Your task to perform on an android device: What's the weather like in Rio de Janeiro? Image 0: 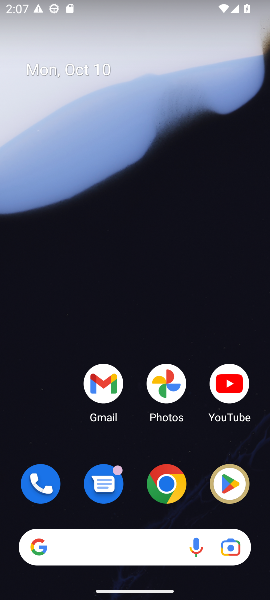
Step 0: click (169, 496)
Your task to perform on an android device: What's the weather like in Rio de Janeiro? Image 1: 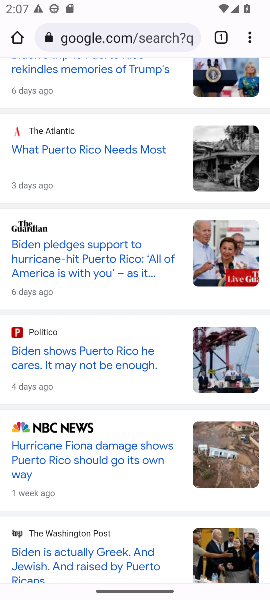
Step 1: drag from (90, 102) to (105, 293)
Your task to perform on an android device: What's the weather like in Rio de Janeiro? Image 2: 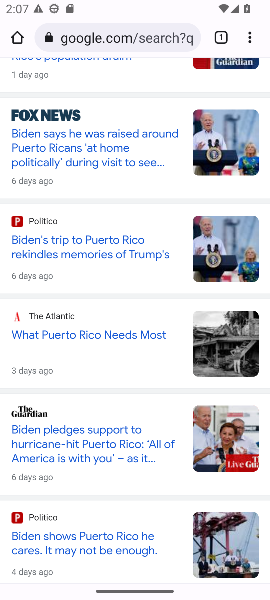
Step 2: click (74, 42)
Your task to perform on an android device: What's the weather like in Rio de Janeiro? Image 3: 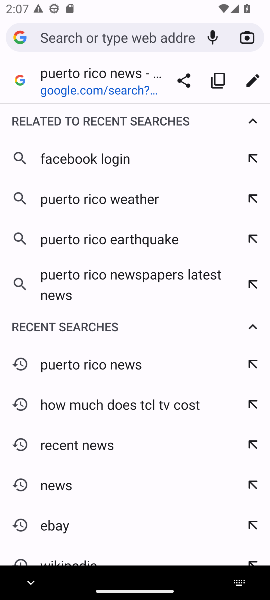
Step 3: type "rio de janeiro weather"
Your task to perform on an android device: What's the weather like in Rio de Janeiro? Image 4: 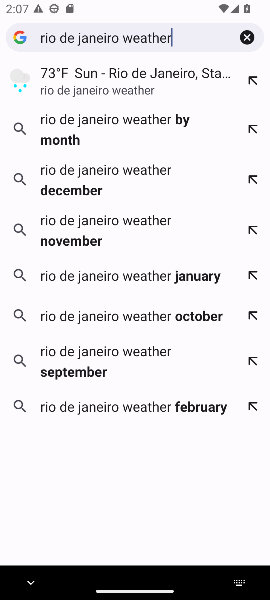
Step 4: click (141, 81)
Your task to perform on an android device: What's the weather like in Rio de Janeiro? Image 5: 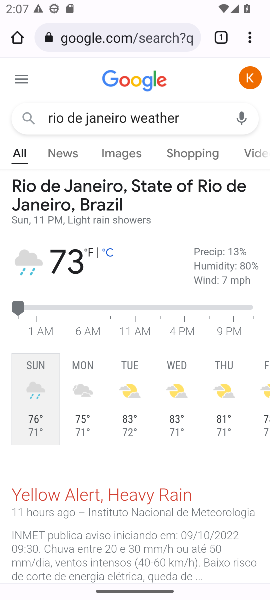
Step 5: task complete